Your task to perform on an android device: Open calendar and show me the third week of next month Image 0: 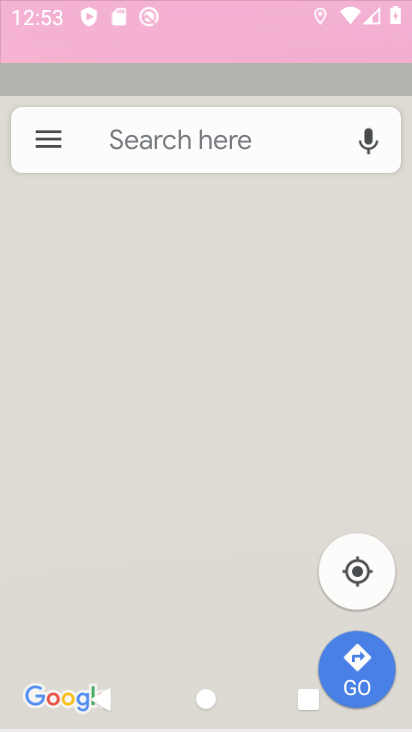
Step 0: press home button
Your task to perform on an android device: Open calendar and show me the third week of next month Image 1: 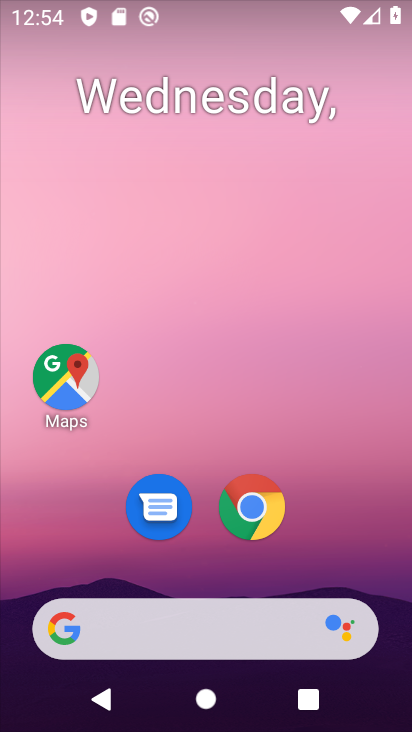
Step 1: drag from (154, 651) to (300, 175)
Your task to perform on an android device: Open calendar and show me the third week of next month Image 2: 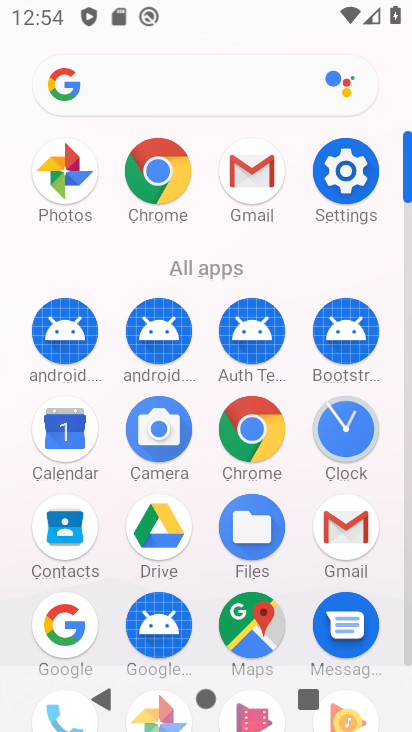
Step 2: click (65, 443)
Your task to perform on an android device: Open calendar and show me the third week of next month Image 3: 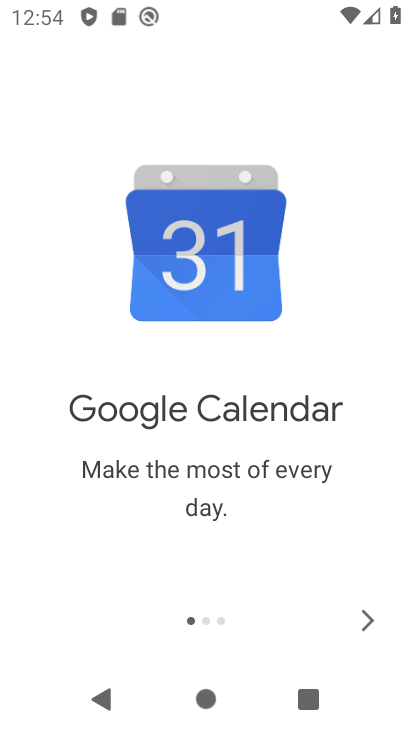
Step 3: click (374, 612)
Your task to perform on an android device: Open calendar and show me the third week of next month Image 4: 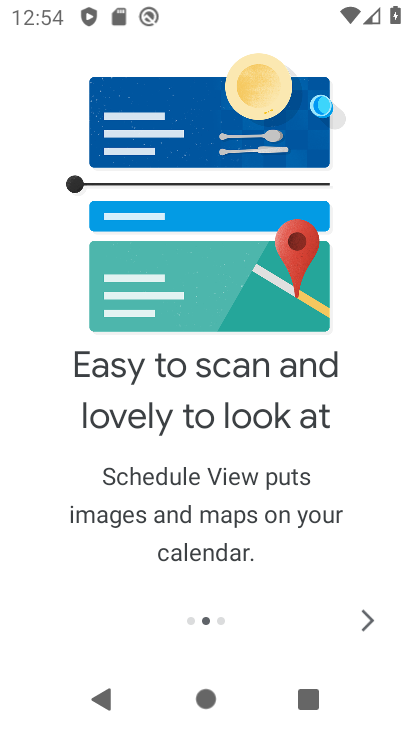
Step 4: click (360, 629)
Your task to perform on an android device: Open calendar and show me the third week of next month Image 5: 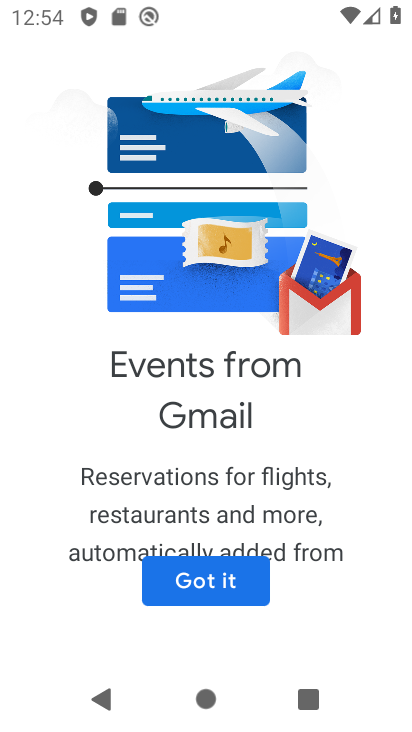
Step 5: click (221, 585)
Your task to perform on an android device: Open calendar and show me the third week of next month Image 6: 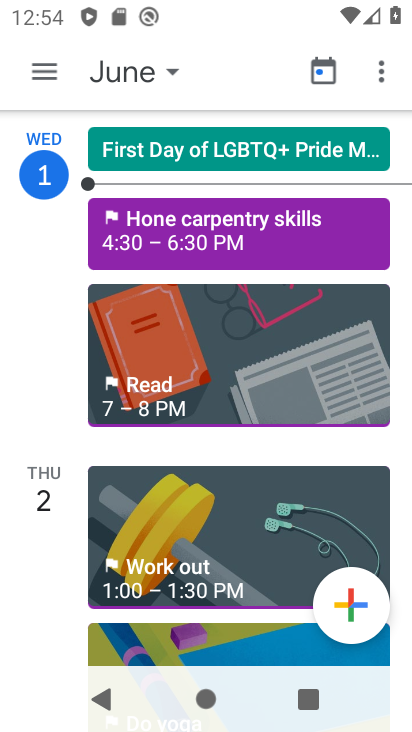
Step 6: click (118, 67)
Your task to perform on an android device: Open calendar and show me the third week of next month Image 7: 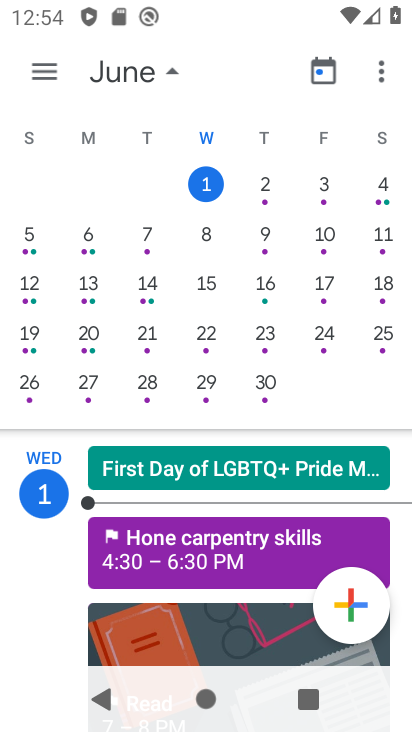
Step 7: drag from (342, 296) to (42, 337)
Your task to perform on an android device: Open calendar and show me the third week of next month Image 8: 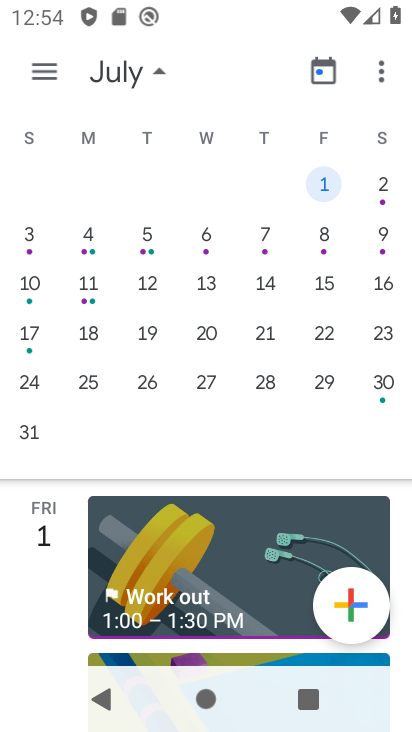
Step 8: click (34, 289)
Your task to perform on an android device: Open calendar and show me the third week of next month Image 9: 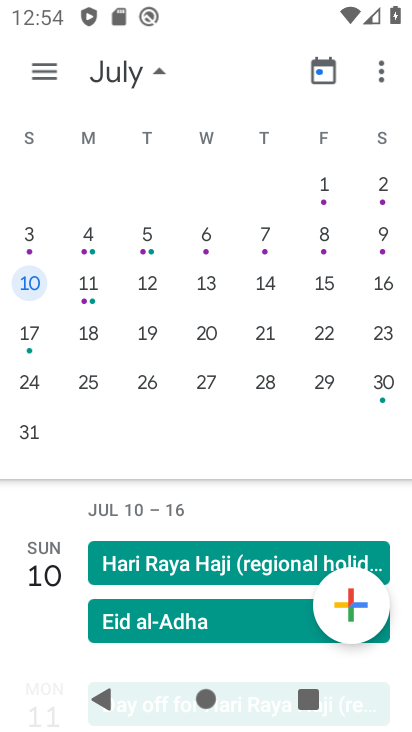
Step 9: click (31, 336)
Your task to perform on an android device: Open calendar and show me the third week of next month Image 10: 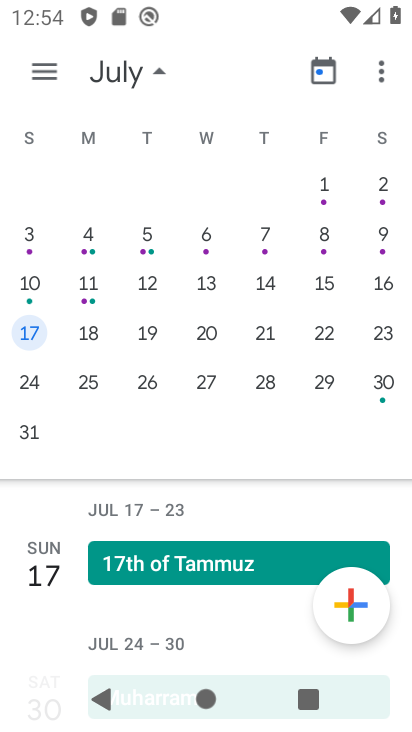
Step 10: click (45, 70)
Your task to perform on an android device: Open calendar and show me the third week of next month Image 11: 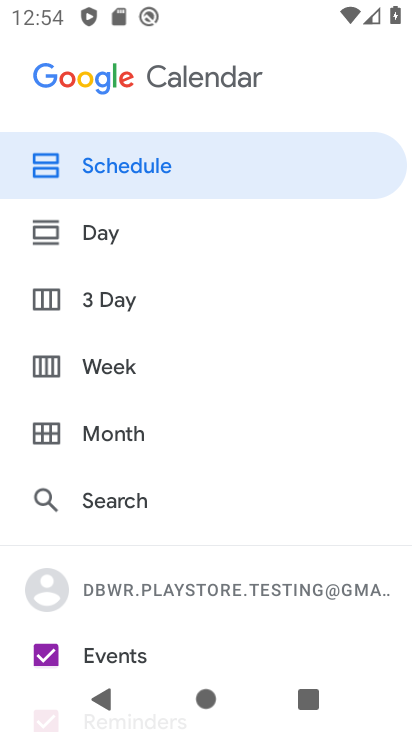
Step 11: click (115, 369)
Your task to perform on an android device: Open calendar and show me the third week of next month Image 12: 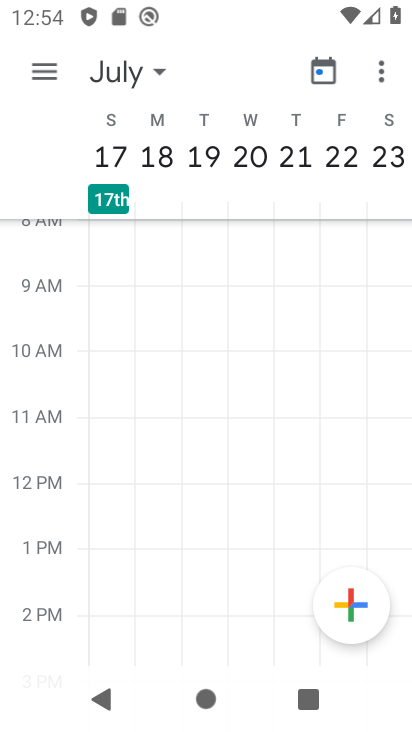
Step 12: task complete